Your task to perform on an android device: toggle sleep mode Image 0: 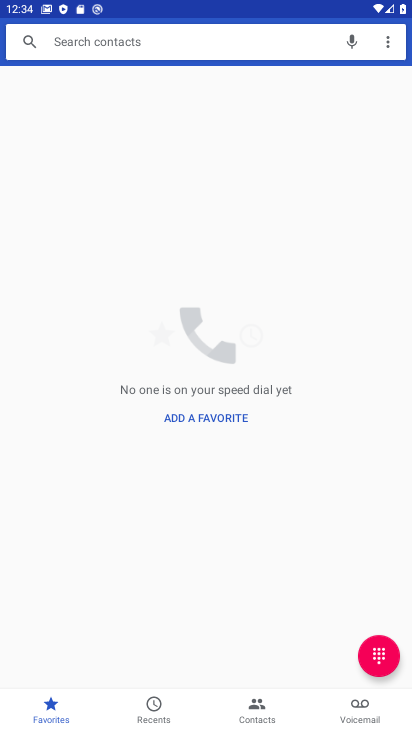
Step 0: press back button
Your task to perform on an android device: toggle sleep mode Image 1: 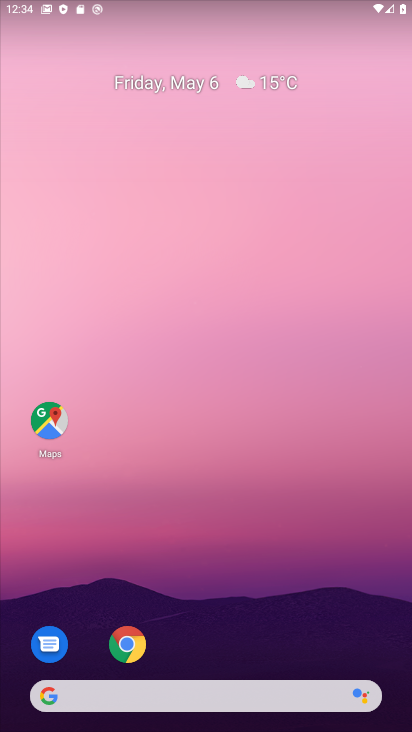
Step 1: drag from (254, 663) to (315, 269)
Your task to perform on an android device: toggle sleep mode Image 2: 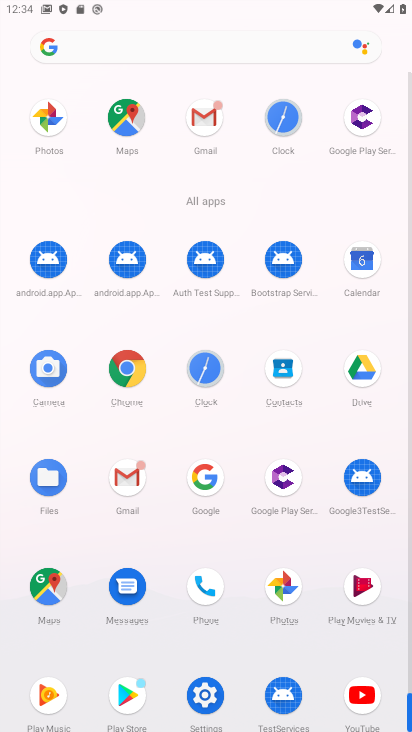
Step 2: drag from (125, 659) to (224, 243)
Your task to perform on an android device: toggle sleep mode Image 3: 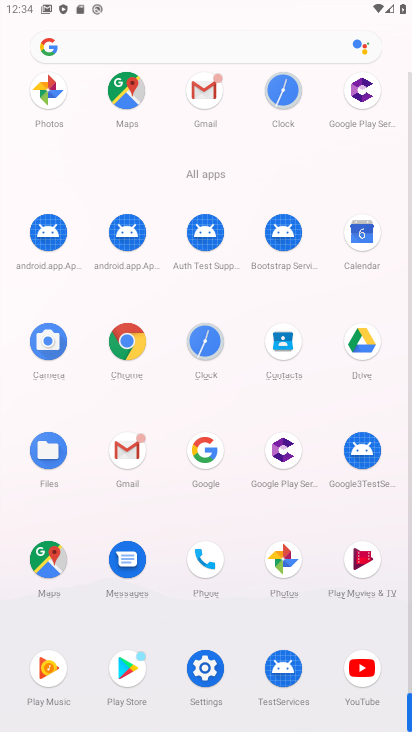
Step 3: click (199, 646)
Your task to perform on an android device: toggle sleep mode Image 4: 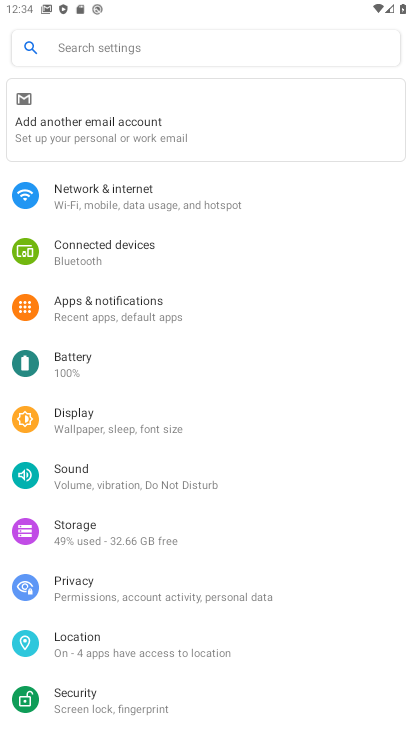
Step 4: click (104, 424)
Your task to perform on an android device: toggle sleep mode Image 5: 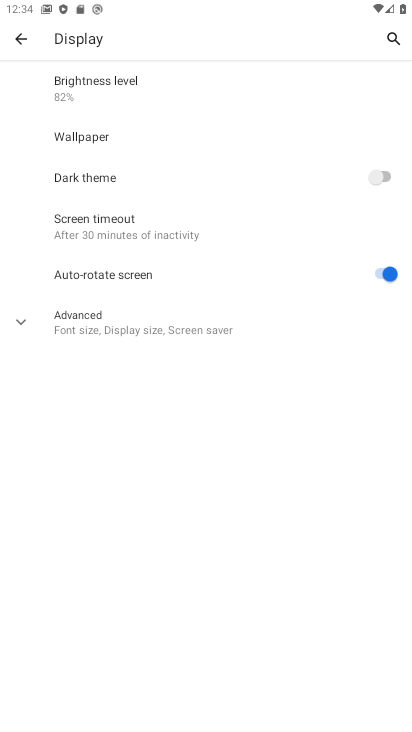
Step 5: click (147, 329)
Your task to perform on an android device: toggle sleep mode Image 6: 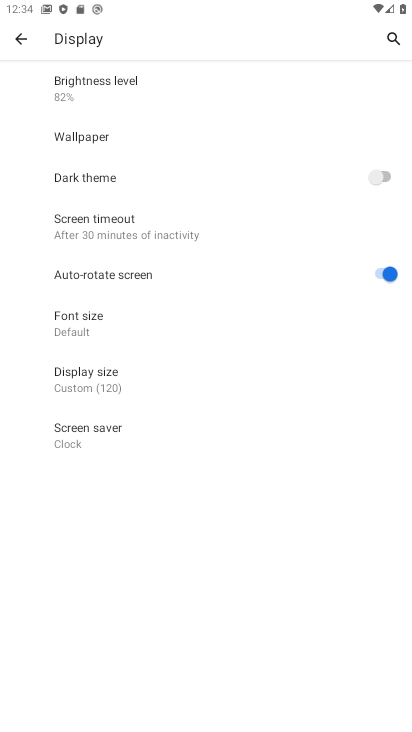
Step 6: task complete